Your task to perform on an android device: open chrome and create a bookmark for the current page Image 0: 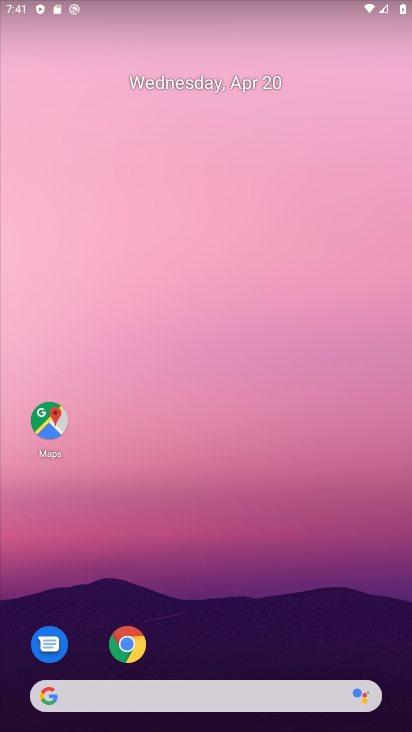
Step 0: drag from (310, 647) to (217, 31)
Your task to perform on an android device: open chrome and create a bookmark for the current page Image 1: 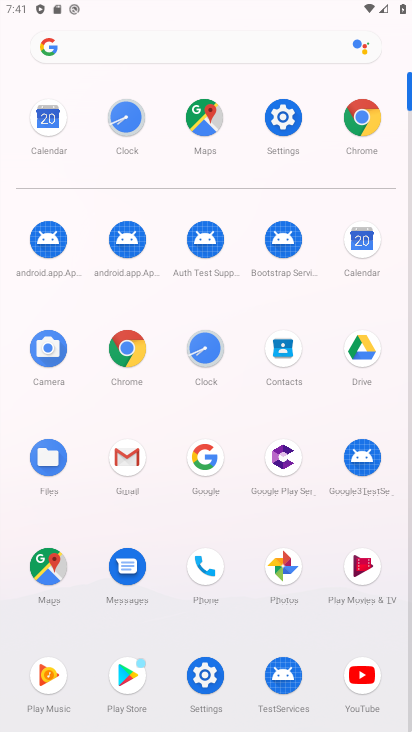
Step 1: click (351, 118)
Your task to perform on an android device: open chrome and create a bookmark for the current page Image 2: 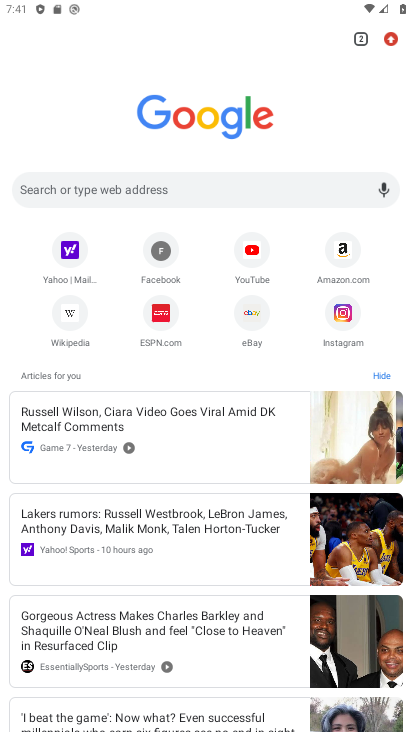
Step 2: click (167, 521)
Your task to perform on an android device: open chrome and create a bookmark for the current page Image 3: 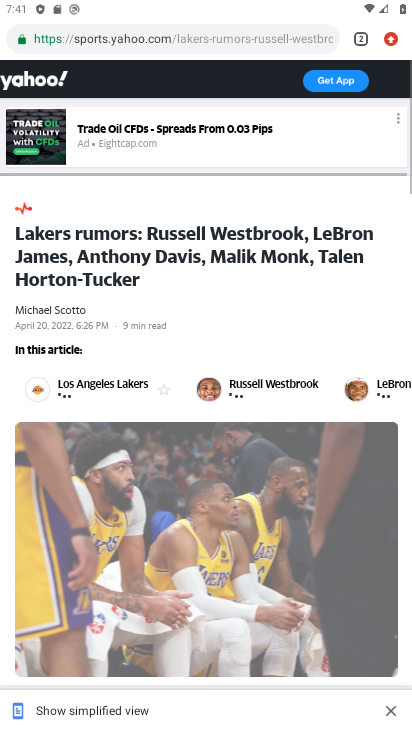
Step 3: click (389, 40)
Your task to perform on an android device: open chrome and create a bookmark for the current page Image 4: 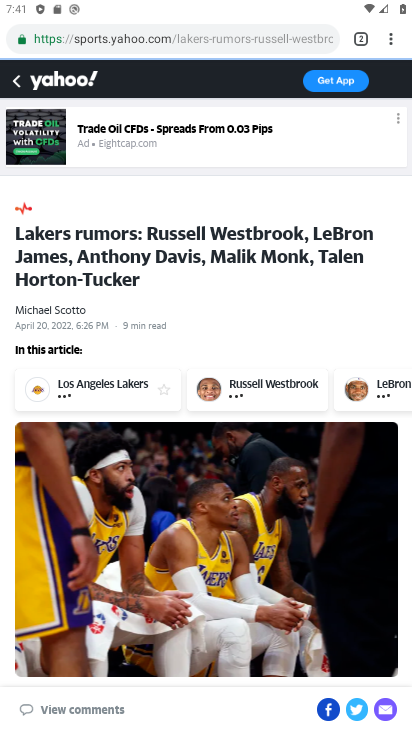
Step 4: click (389, 40)
Your task to perform on an android device: open chrome and create a bookmark for the current page Image 5: 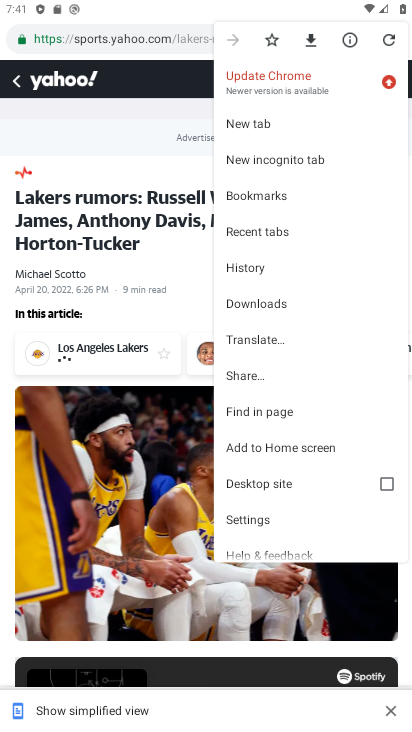
Step 5: click (271, 41)
Your task to perform on an android device: open chrome and create a bookmark for the current page Image 6: 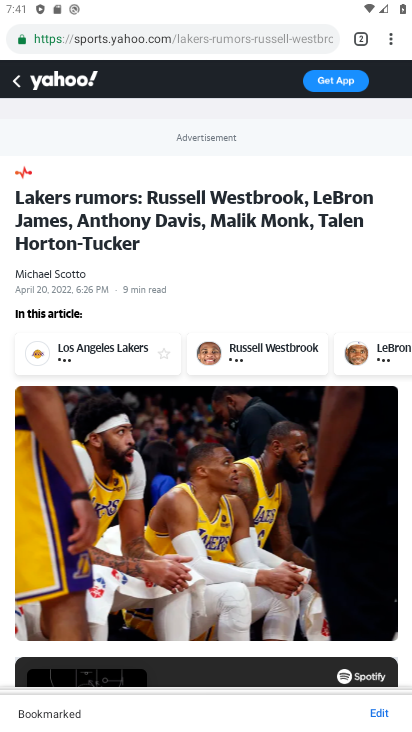
Step 6: task complete